Your task to perform on an android device: find snoozed emails in the gmail app Image 0: 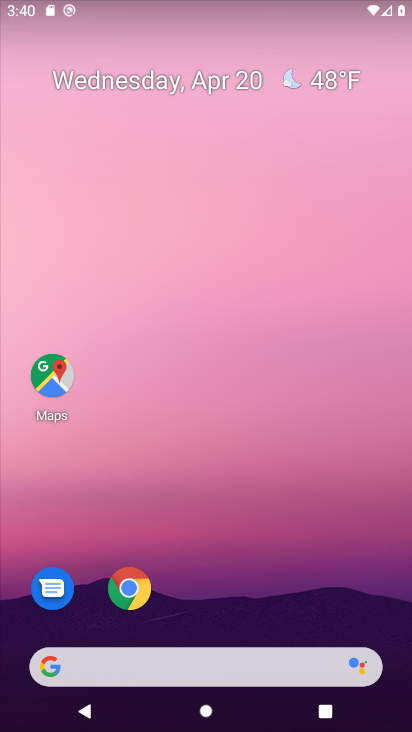
Step 0: drag from (324, 568) to (348, 190)
Your task to perform on an android device: find snoozed emails in the gmail app Image 1: 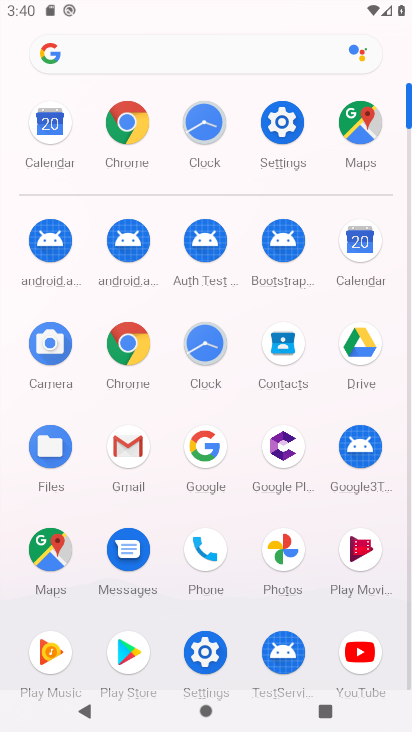
Step 1: click (126, 447)
Your task to perform on an android device: find snoozed emails in the gmail app Image 2: 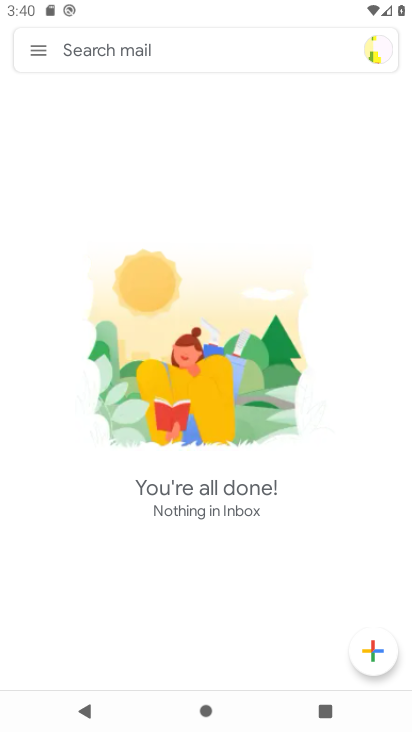
Step 2: click (40, 46)
Your task to perform on an android device: find snoozed emails in the gmail app Image 3: 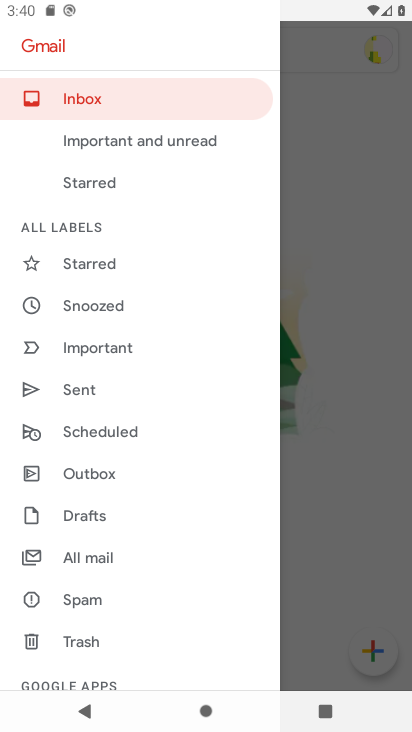
Step 3: drag from (216, 612) to (197, 273)
Your task to perform on an android device: find snoozed emails in the gmail app Image 4: 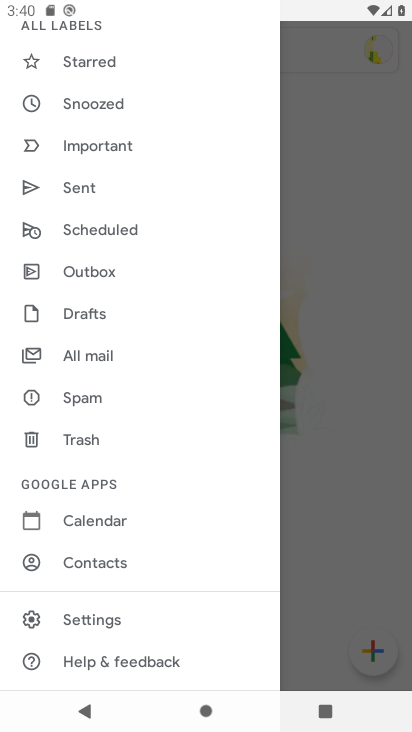
Step 4: click (94, 100)
Your task to perform on an android device: find snoozed emails in the gmail app Image 5: 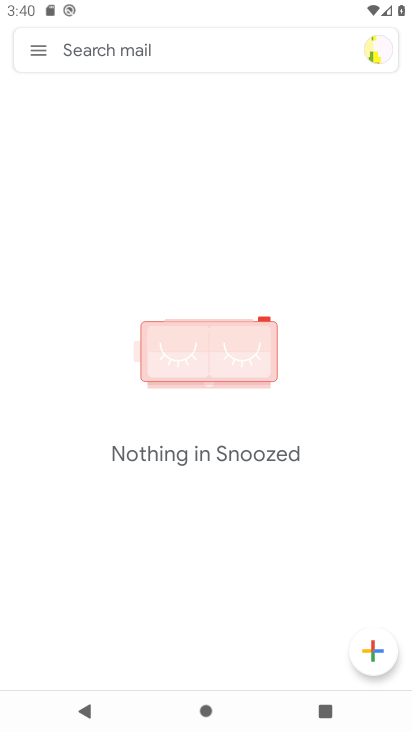
Step 5: task complete